Your task to perform on an android device: Open notification settings Image 0: 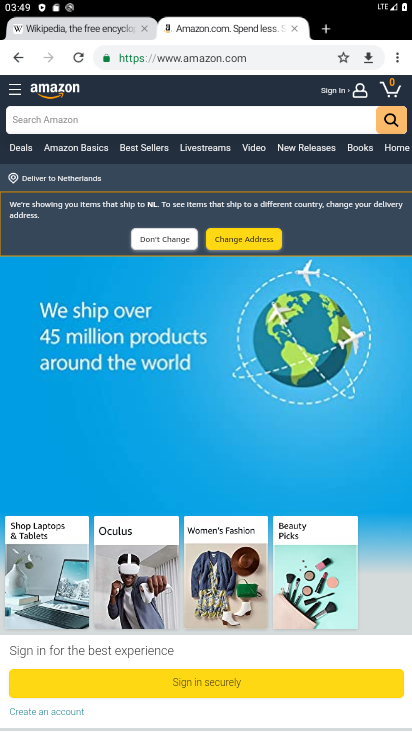
Step 0: press home button
Your task to perform on an android device: Open notification settings Image 1: 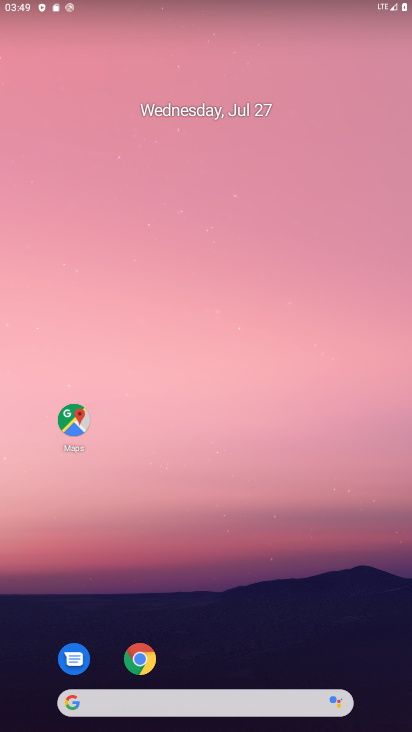
Step 1: drag from (224, 658) to (205, 54)
Your task to perform on an android device: Open notification settings Image 2: 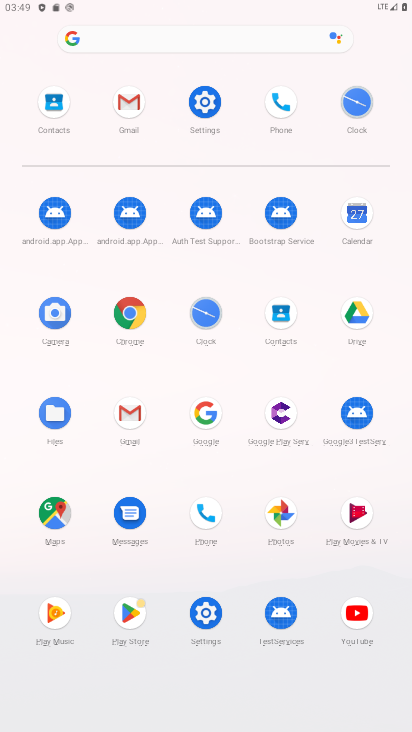
Step 2: click (197, 107)
Your task to perform on an android device: Open notification settings Image 3: 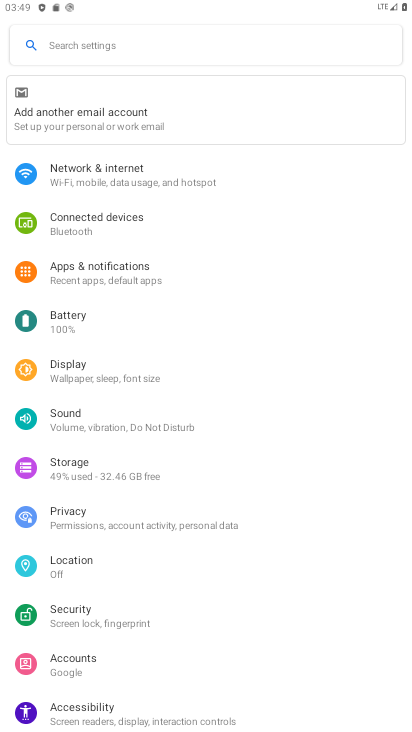
Step 3: click (69, 272)
Your task to perform on an android device: Open notification settings Image 4: 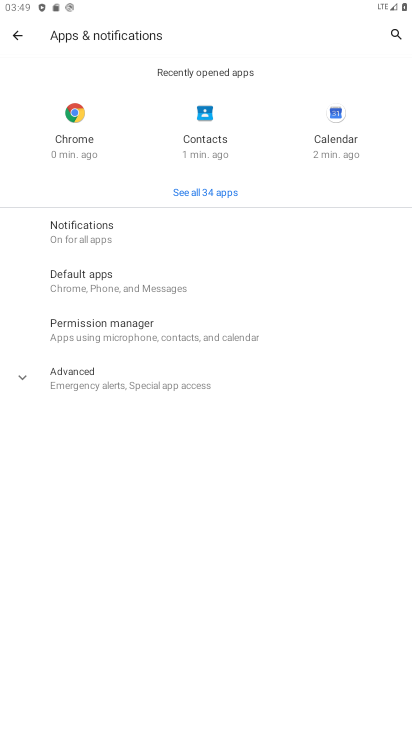
Step 4: click (92, 223)
Your task to perform on an android device: Open notification settings Image 5: 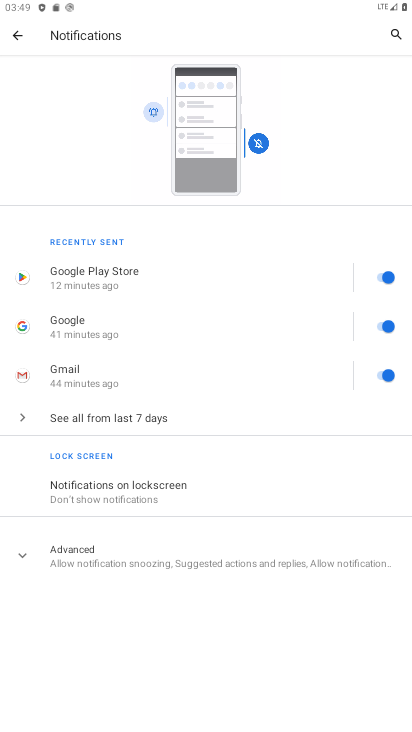
Step 5: task complete